Your task to perform on an android device: Open Chrome and go to settings Image 0: 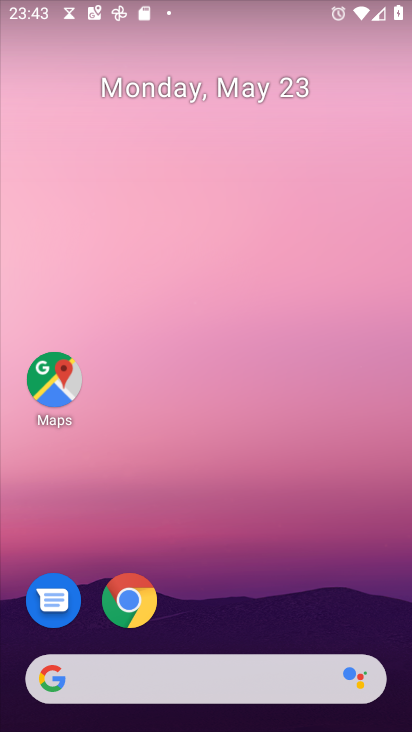
Step 0: click (127, 602)
Your task to perform on an android device: Open Chrome and go to settings Image 1: 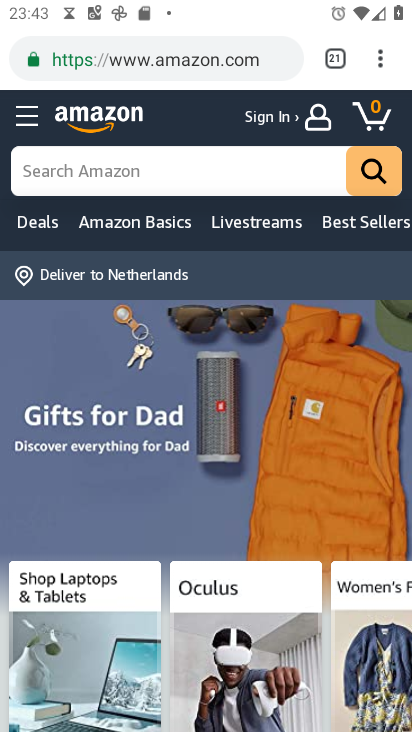
Step 1: click (380, 58)
Your task to perform on an android device: Open Chrome and go to settings Image 2: 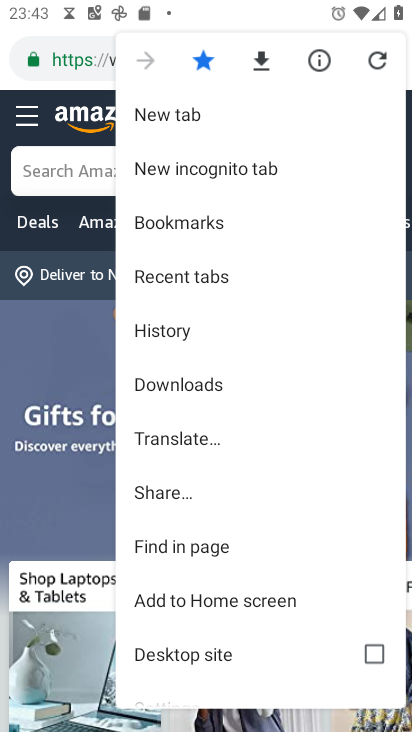
Step 2: drag from (172, 621) to (177, 337)
Your task to perform on an android device: Open Chrome and go to settings Image 3: 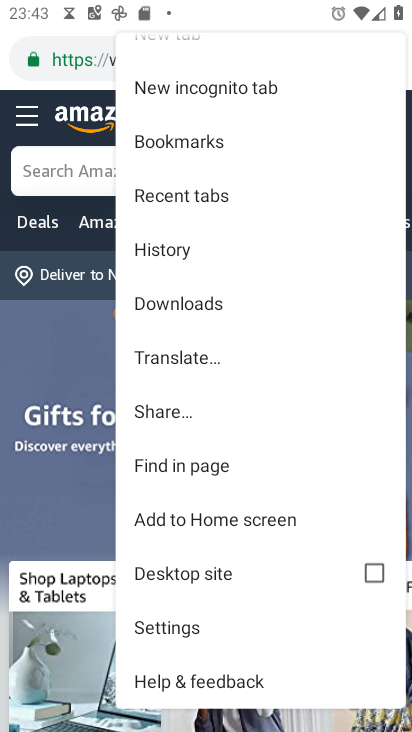
Step 3: click (179, 625)
Your task to perform on an android device: Open Chrome and go to settings Image 4: 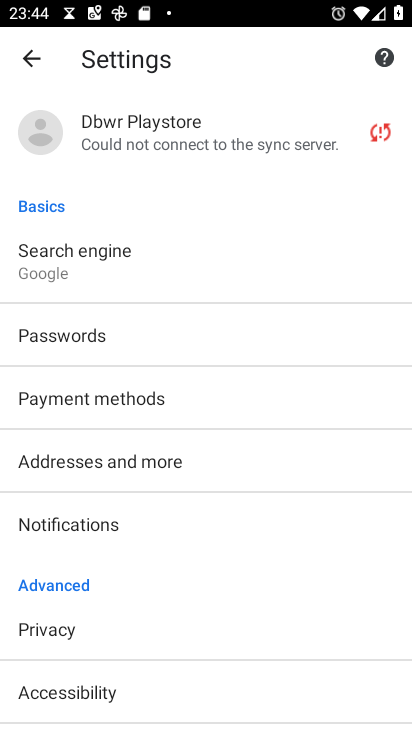
Step 4: task complete